Your task to perform on an android device: Open maps Image 0: 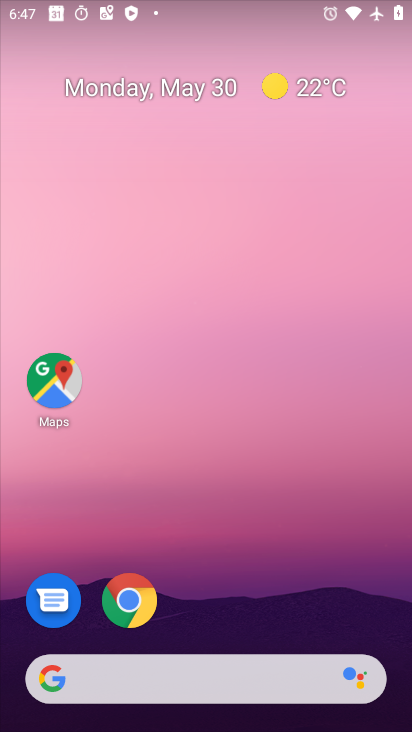
Step 0: press home button
Your task to perform on an android device: Open maps Image 1: 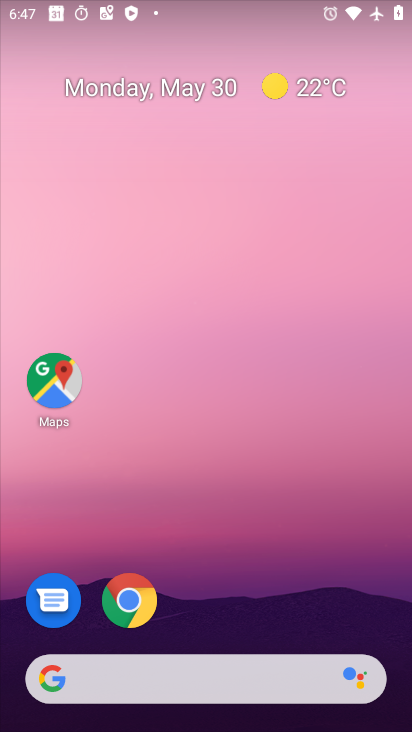
Step 1: click (64, 387)
Your task to perform on an android device: Open maps Image 2: 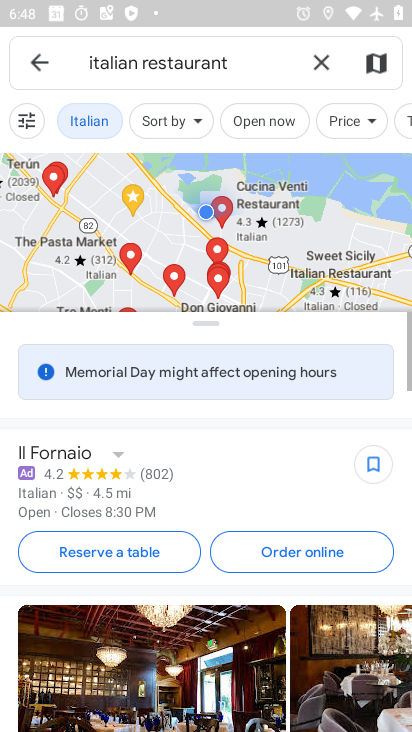
Step 2: click (322, 59)
Your task to perform on an android device: Open maps Image 3: 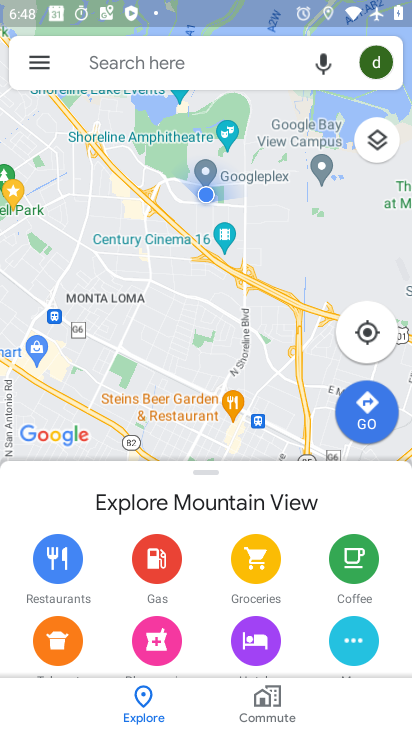
Step 3: task complete